Your task to perform on an android device: open app "Google Calendar" (install if not already installed) Image 0: 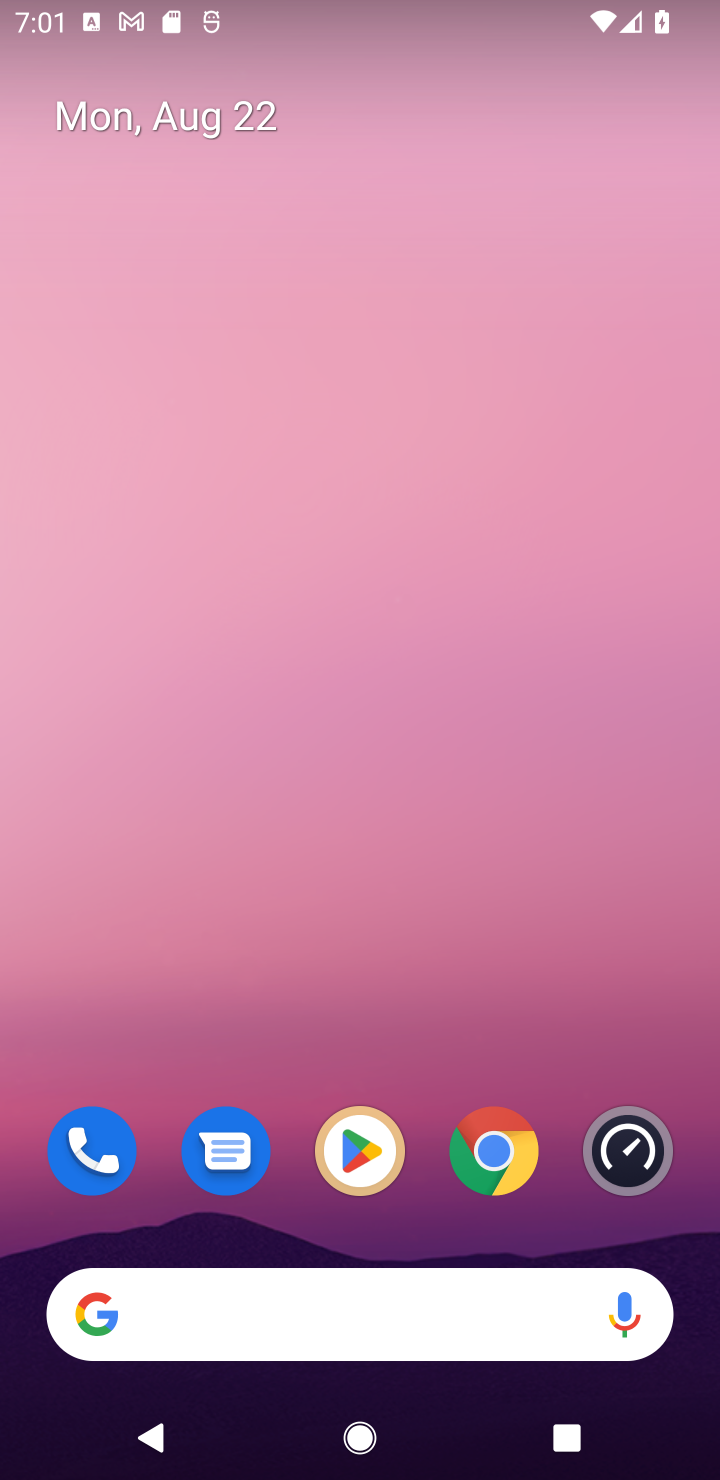
Step 0: click (356, 1143)
Your task to perform on an android device: open app "Google Calendar" (install if not already installed) Image 1: 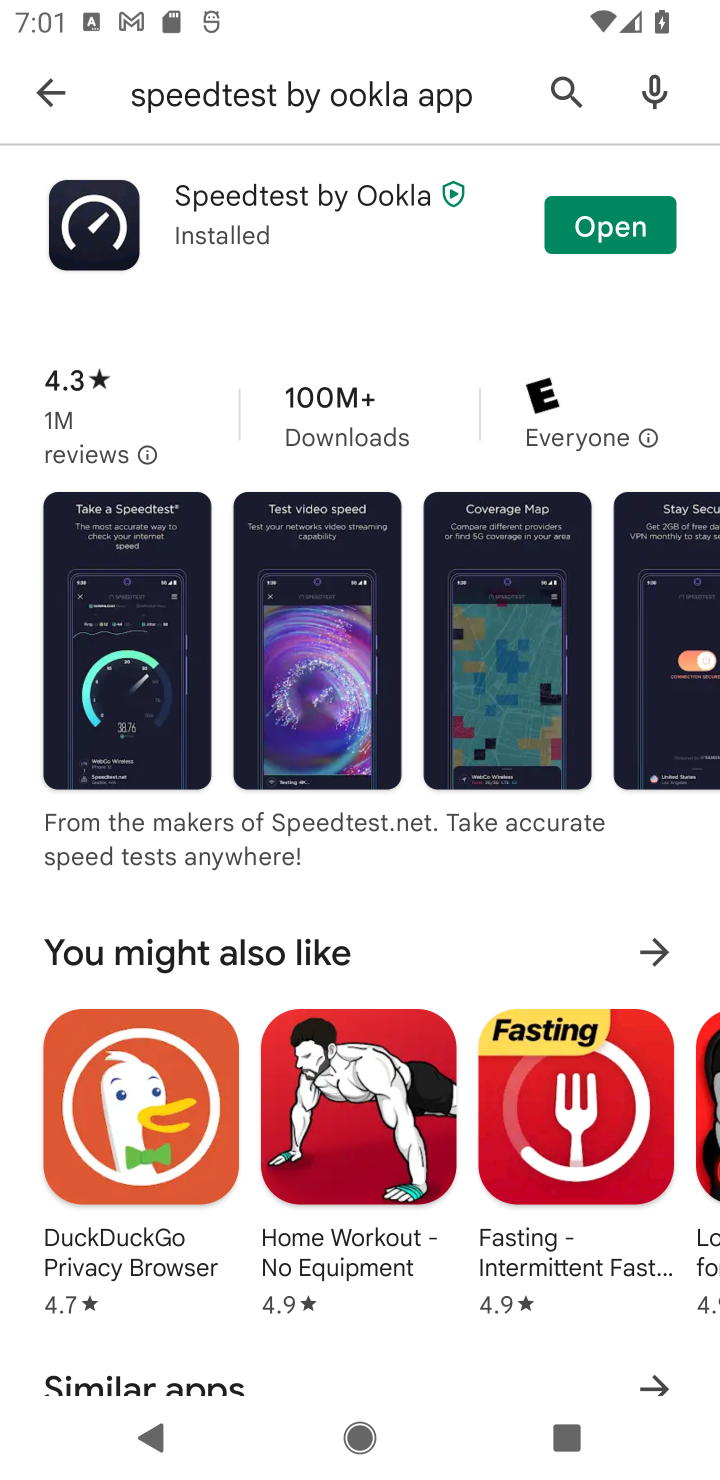
Step 1: click (565, 85)
Your task to perform on an android device: open app "Google Calendar" (install if not already installed) Image 2: 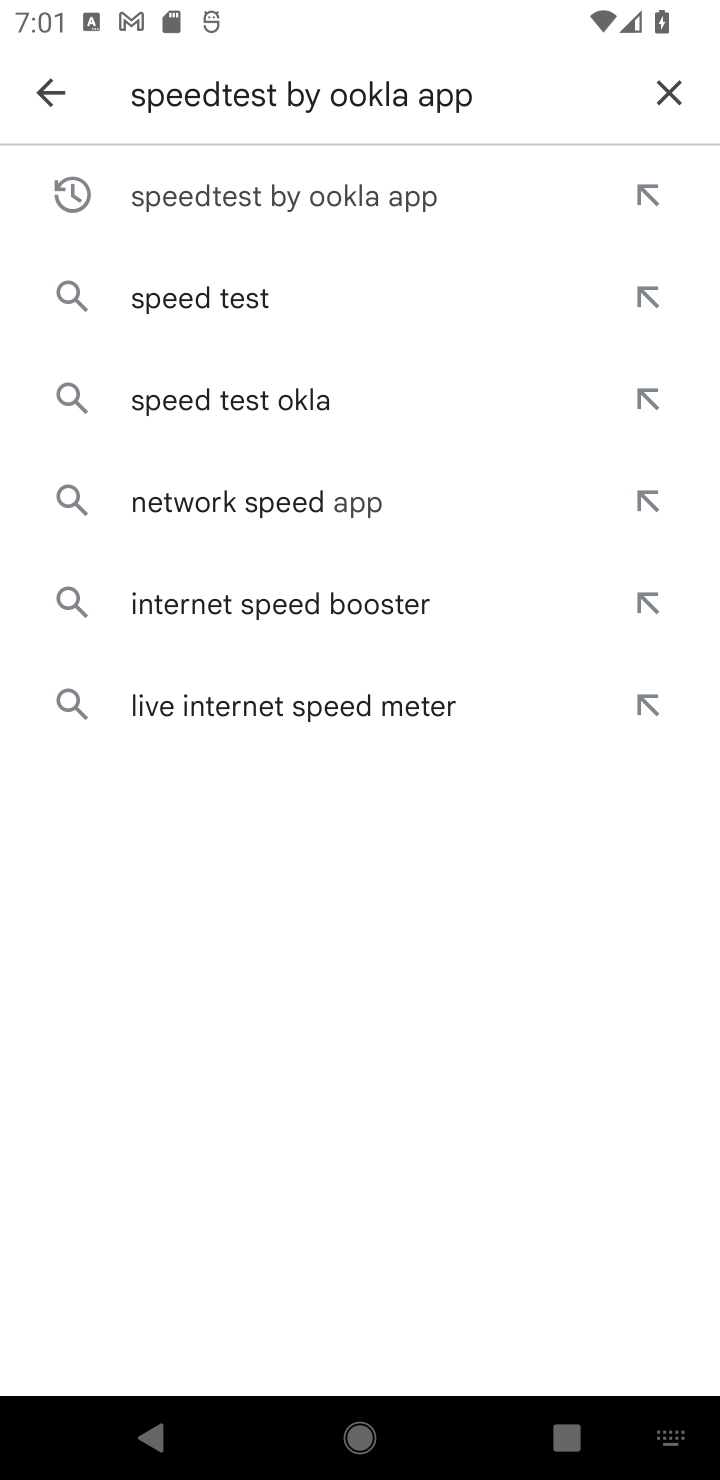
Step 2: click (665, 83)
Your task to perform on an android device: open app "Google Calendar" (install if not already installed) Image 3: 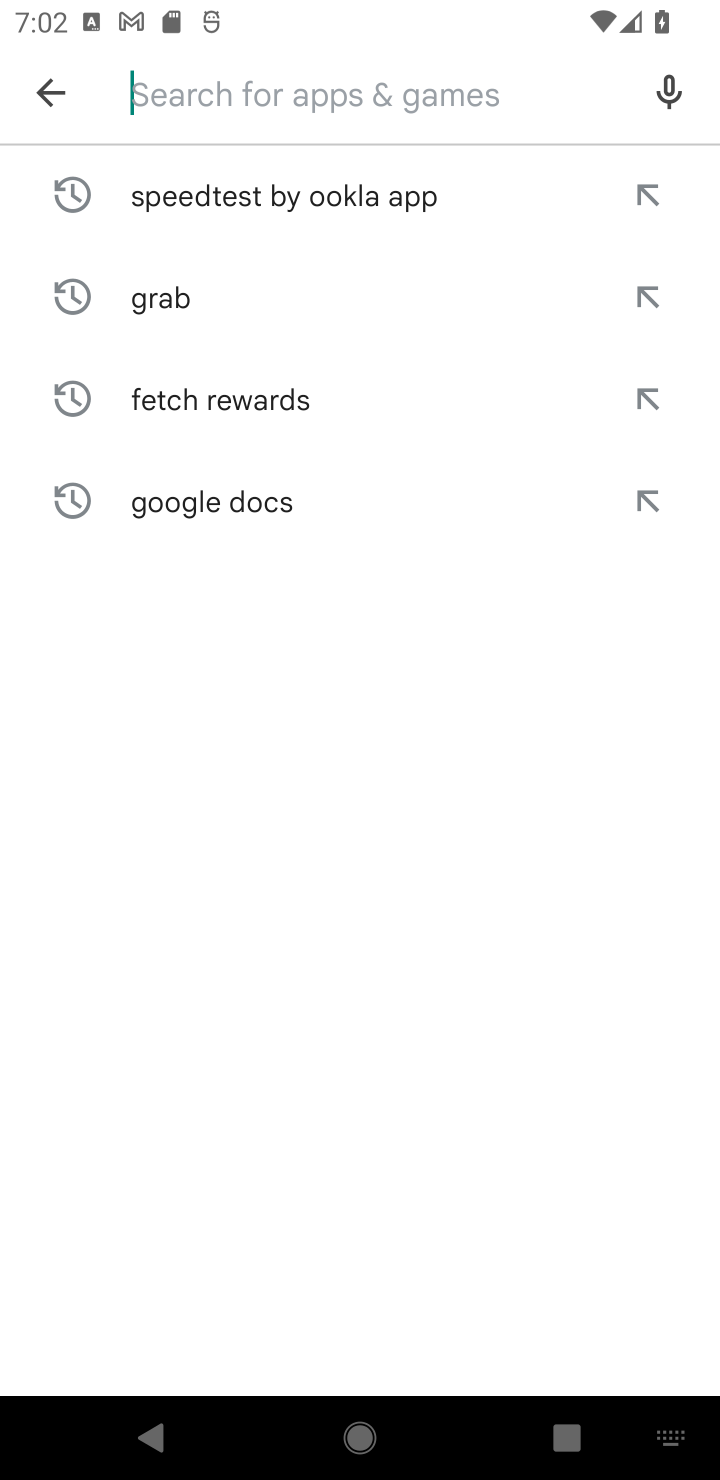
Step 3: type "Google Calendar"
Your task to perform on an android device: open app "Google Calendar" (install if not already installed) Image 4: 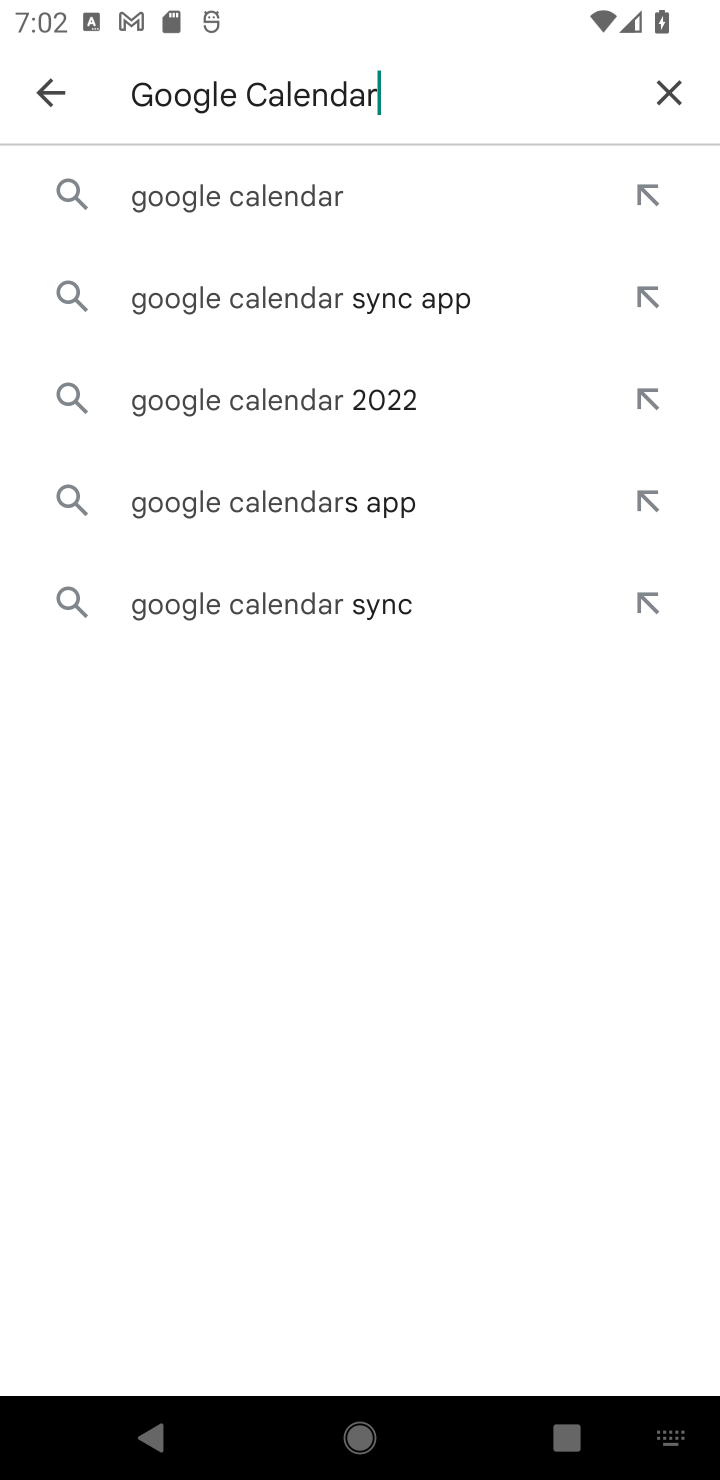
Step 4: click (287, 190)
Your task to perform on an android device: open app "Google Calendar" (install if not already installed) Image 5: 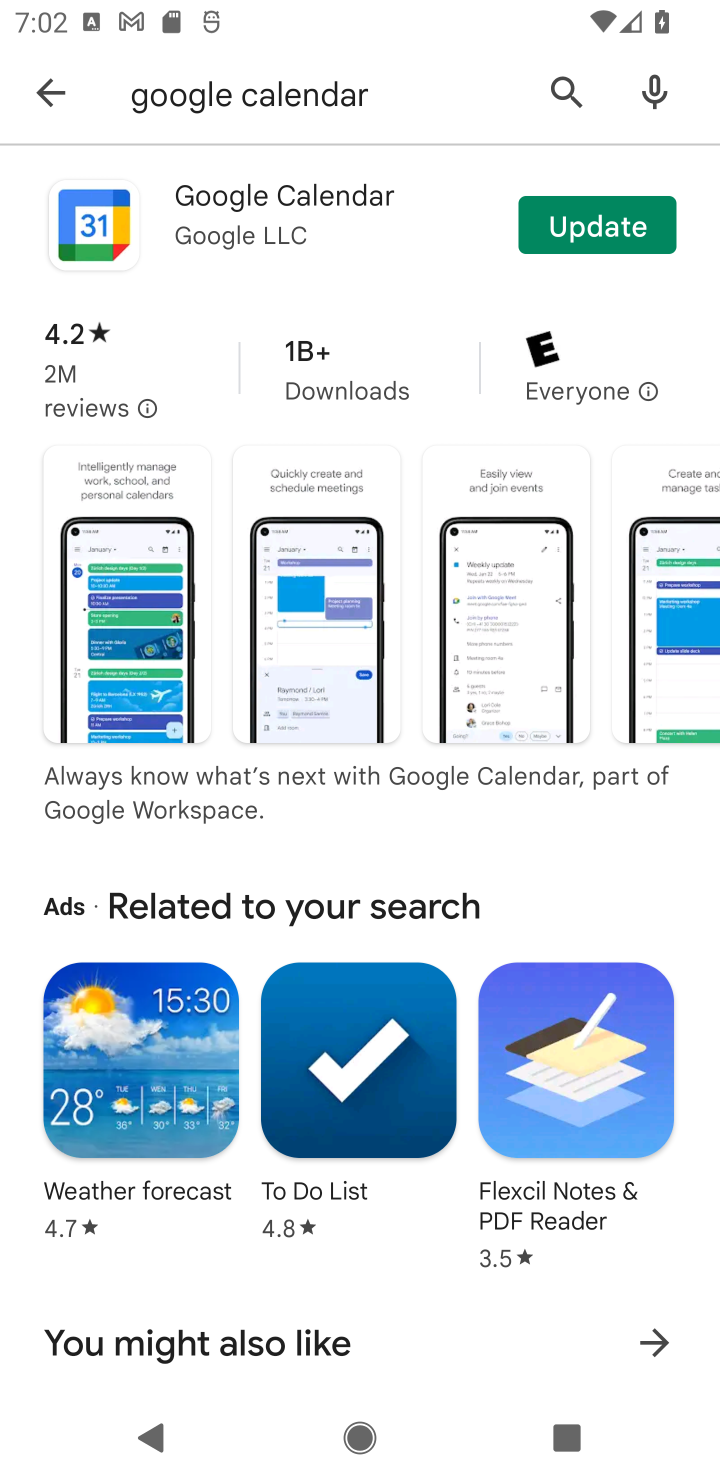
Step 5: click (216, 215)
Your task to perform on an android device: open app "Google Calendar" (install if not already installed) Image 6: 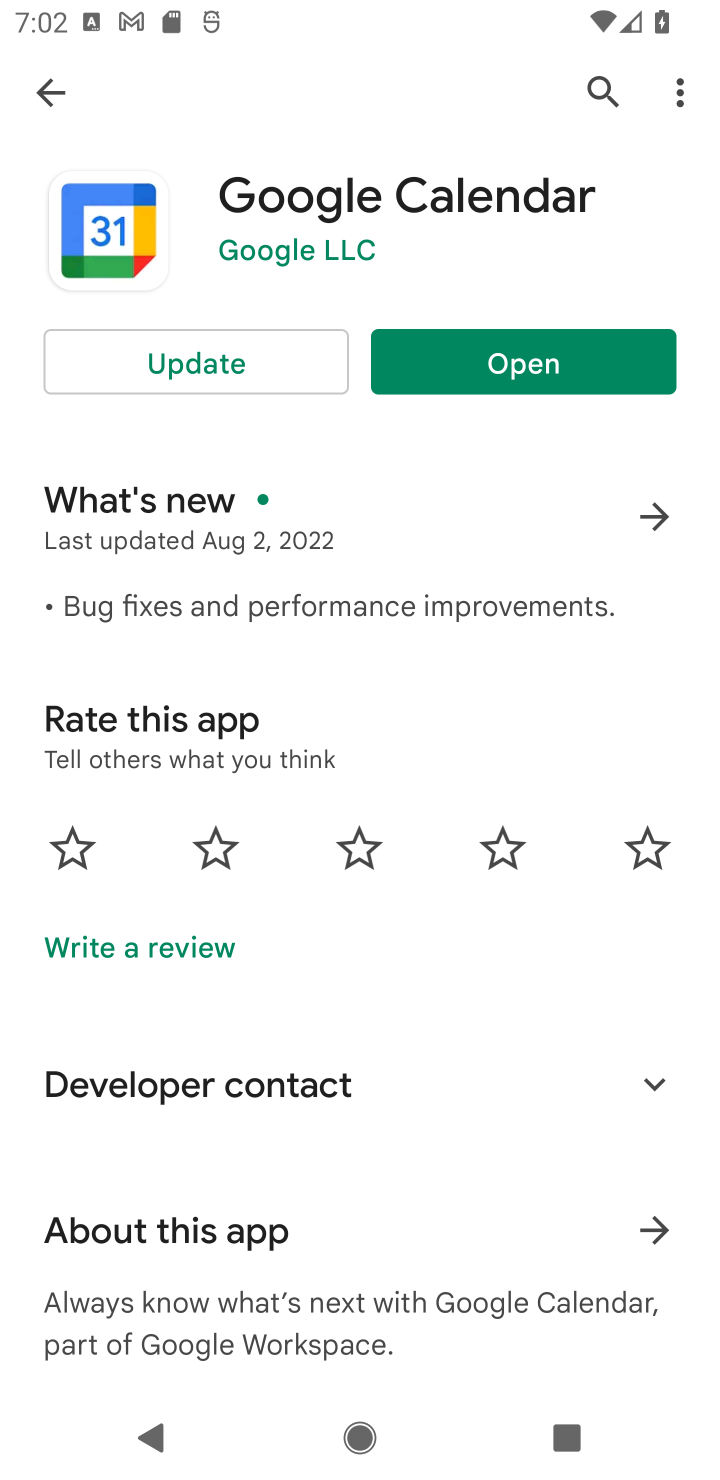
Step 6: click (573, 377)
Your task to perform on an android device: open app "Google Calendar" (install if not already installed) Image 7: 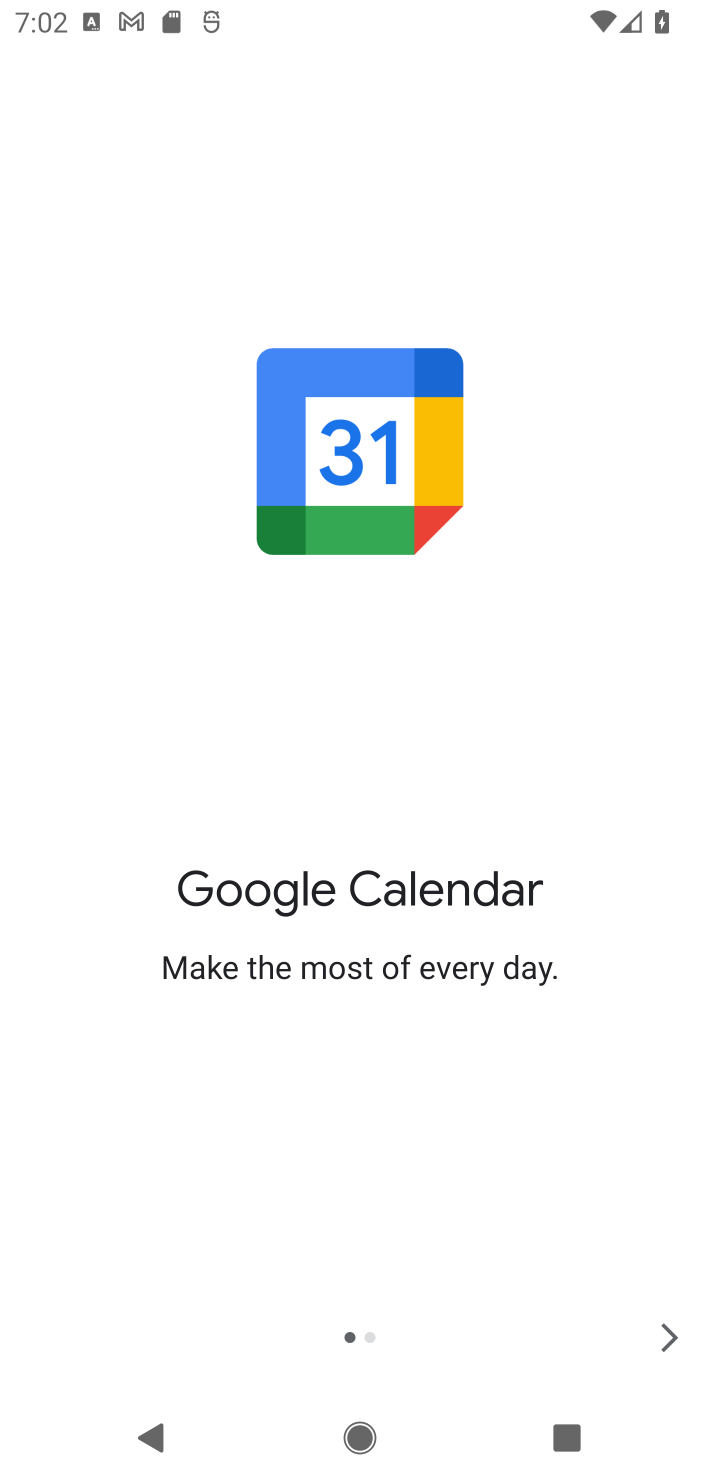
Step 7: click (649, 1316)
Your task to perform on an android device: open app "Google Calendar" (install if not already installed) Image 8: 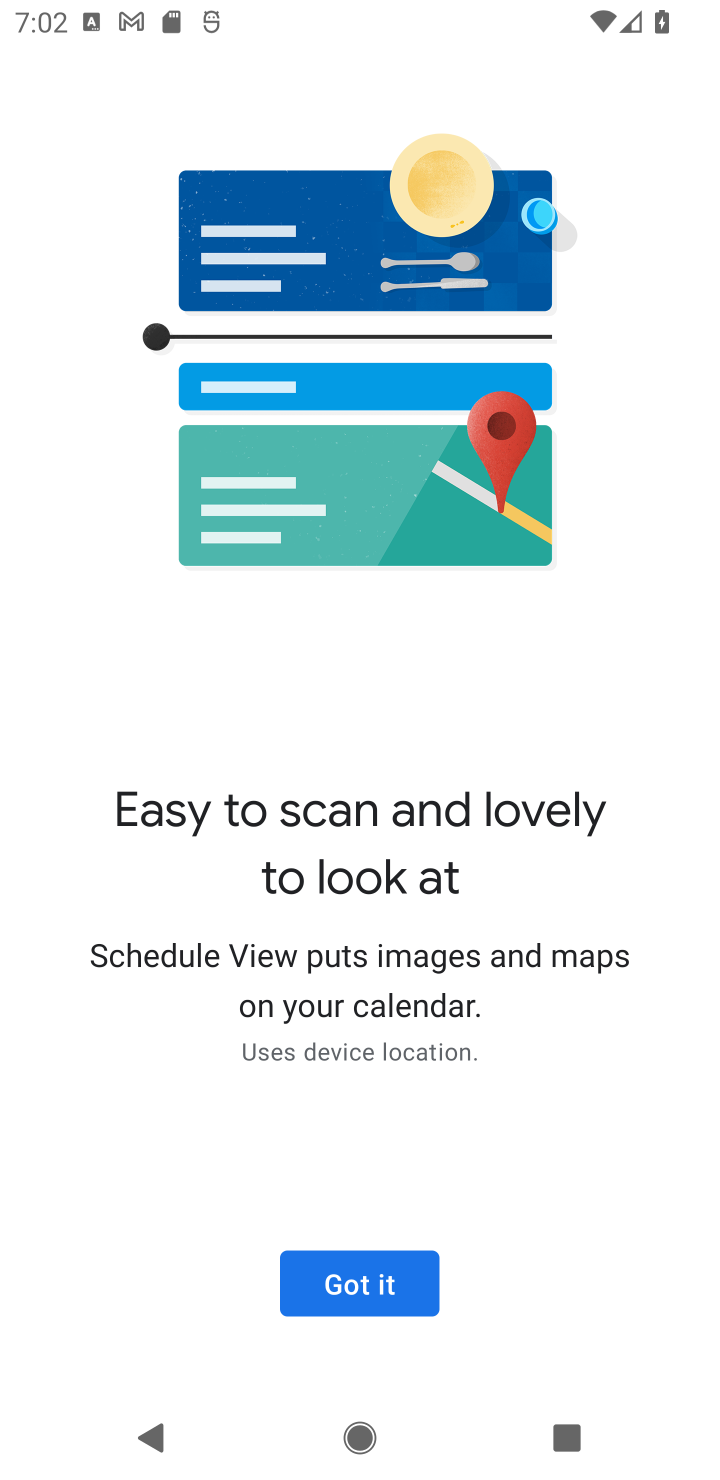
Step 8: click (658, 1322)
Your task to perform on an android device: open app "Google Calendar" (install if not already installed) Image 9: 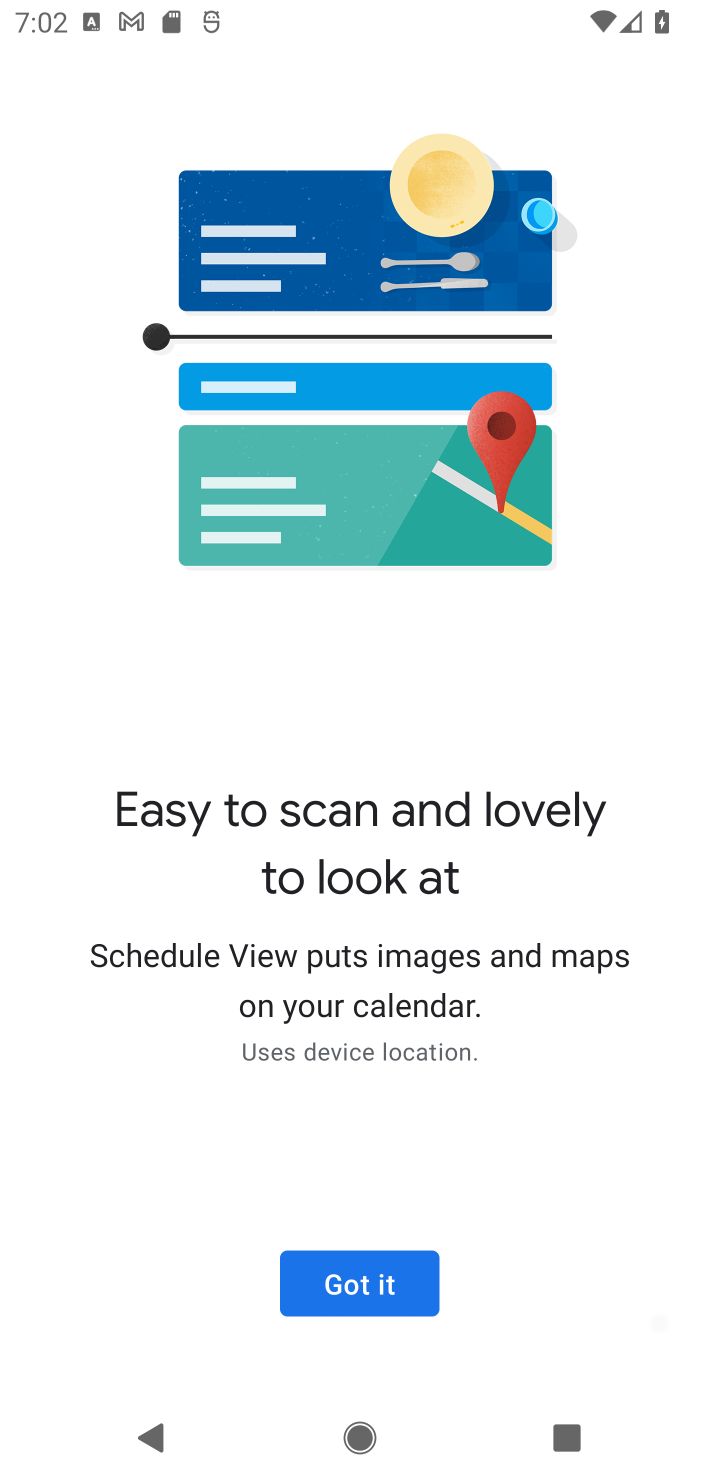
Step 9: click (398, 1290)
Your task to perform on an android device: open app "Google Calendar" (install if not already installed) Image 10: 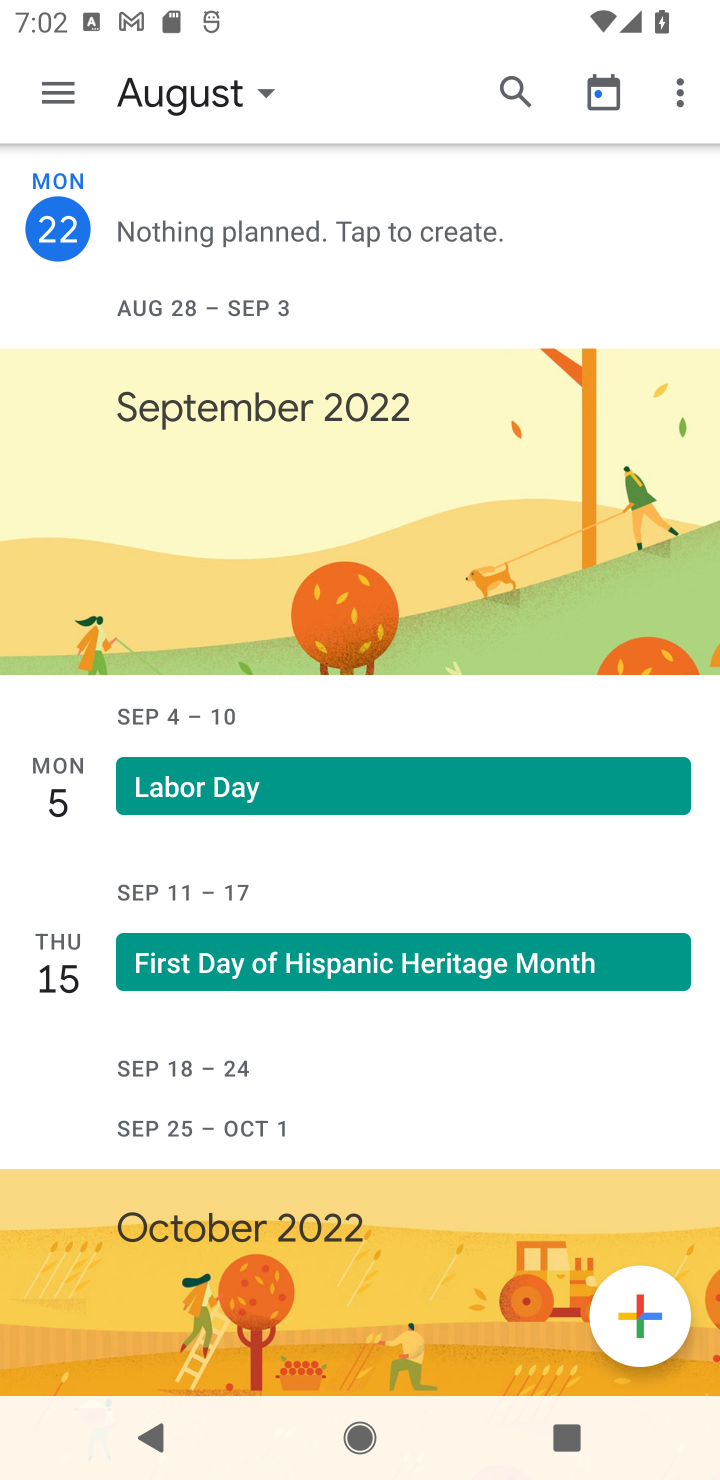
Step 10: task complete